Your task to perform on an android device: turn notification dots off Image 0: 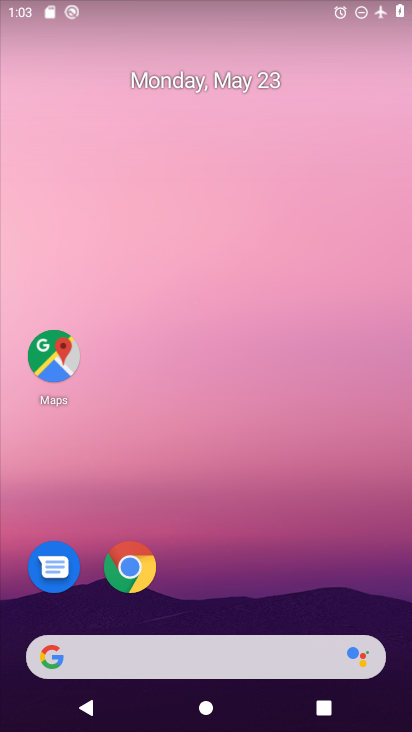
Step 0: drag from (221, 583) to (213, 210)
Your task to perform on an android device: turn notification dots off Image 1: 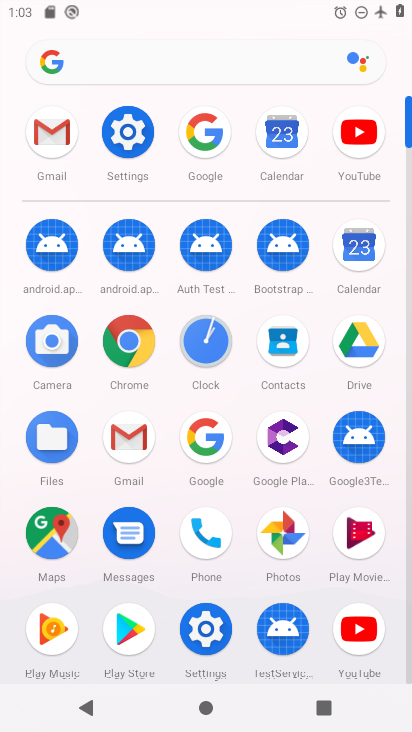
Step 1: click (107, 138)
Your task to perform on an android device: turn notification dots off Image 2: 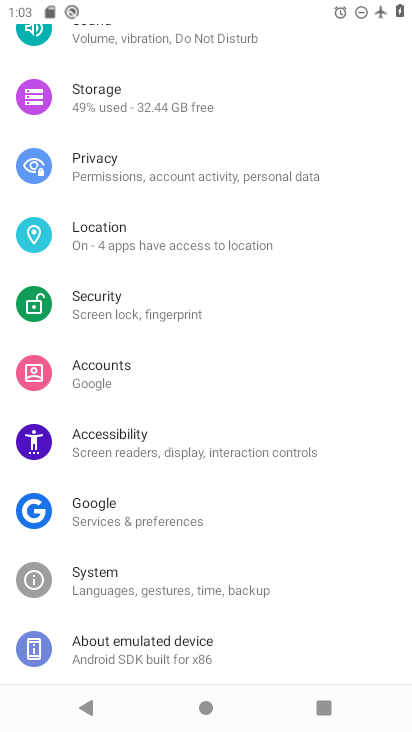
Step 2: drag from (187, 153) to (215, 477)
Your task to perform on an android device: turn notification dots off Image 3: 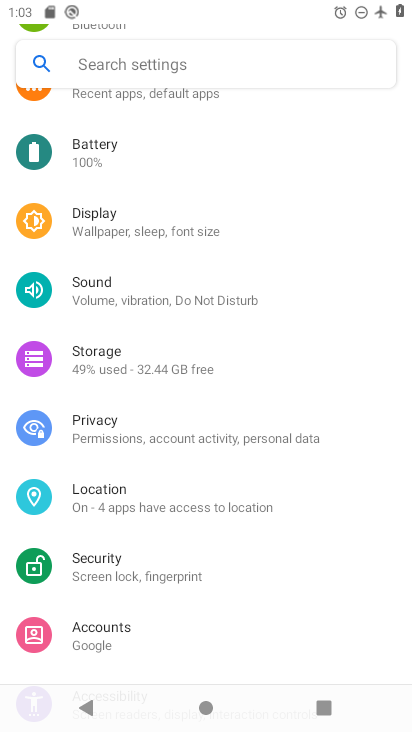
Step 3: drag from (175, 196) to (211, 443)
Your task to perform on an android device: turn notification dots off Image 4: 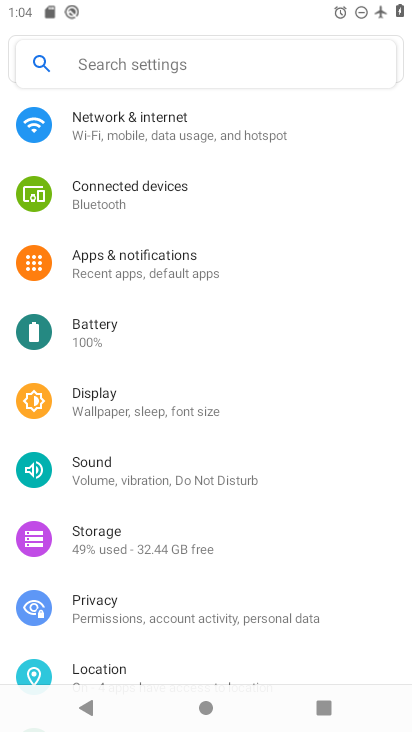
Step 4: click (198, 259)
Your task to perform on an android device: turn notification dots off Image 5: 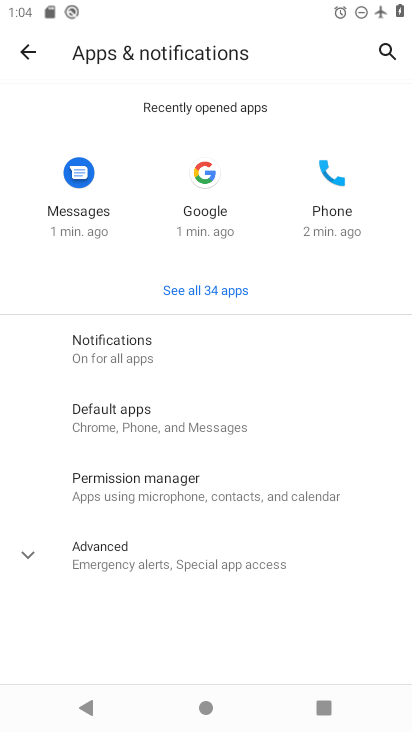
Step 5: click (148, 367)
Your task to perform on an android device: turn notification dots off Image 6: 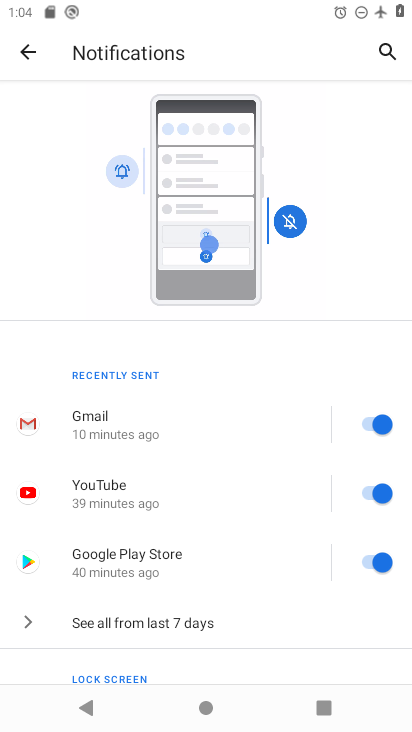
Step 6: drag from (210, 534) to (198, 237)
Your task to perform on an android device: turn notification dots off Image 7: 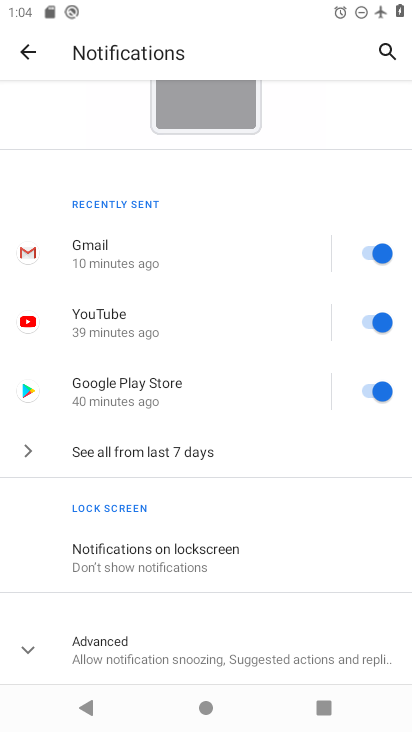
Step 7: drag from (243, 613) to (245, 396)
Your task to perform on an android device: turn notification dots off Image 8: 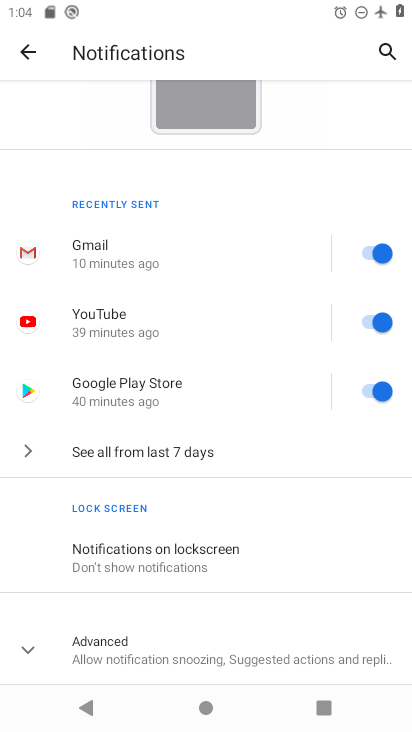
Step 8: click (246, 644)
Your task to perform on an android device: turn notification dots off Image 9: 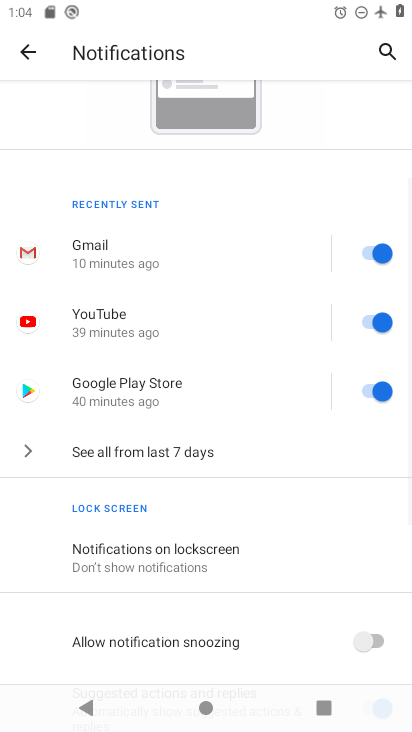
Step 9: drag from (251, 625) to (252, 270)
Your task to perform on an android device: turn notification dots off Image 10: 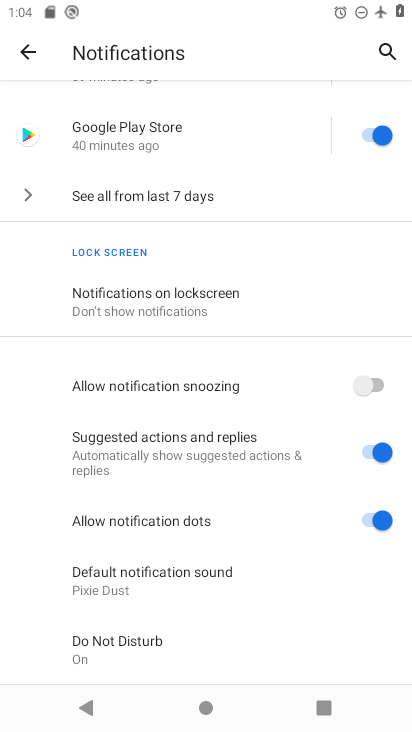
Step 10: click (365, 518)
Your task to perform on an android device: turn notification dots off Image 11: 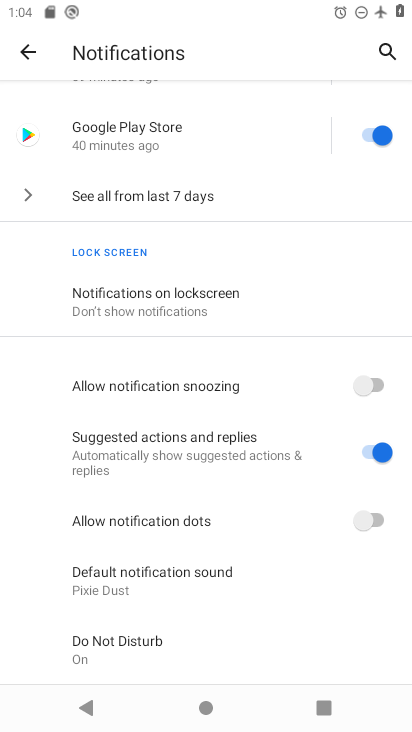
Step 11: task complete